Your task to perform on an android device: change the clock style Image 0: 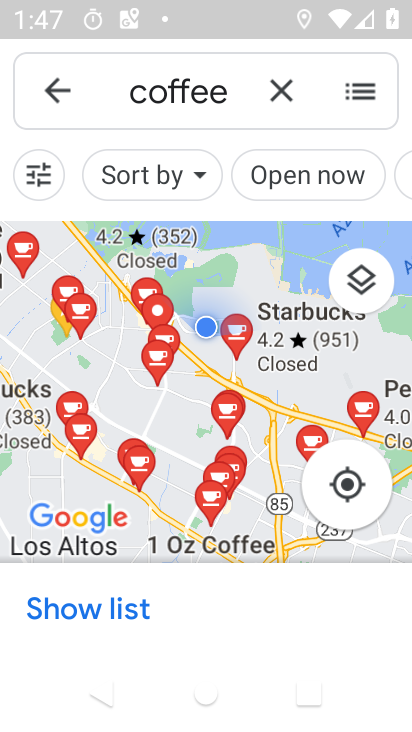
Step 0: press home button
Your task to perform on an android device: change the clock style Image 1: 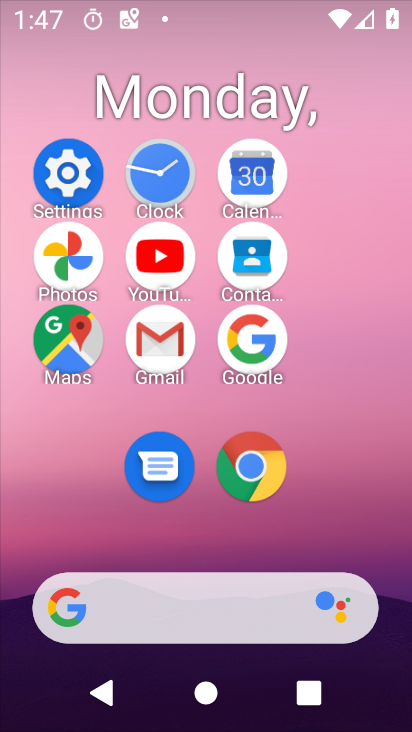
Step 1: click (176, 174)
Your task to perform on an android device: change the clock style Image 2: 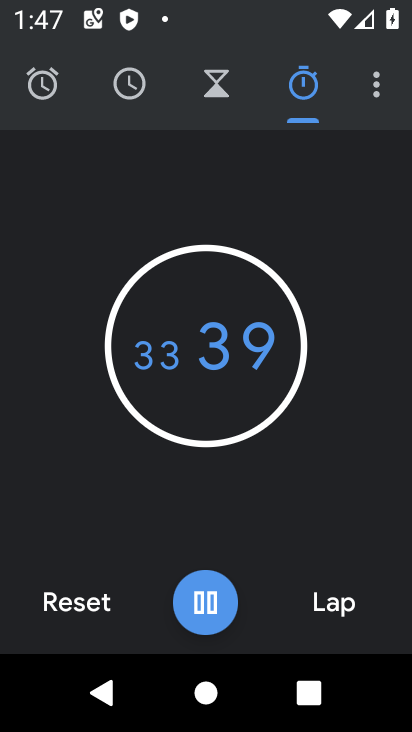
Step 2: click (355, 93)
Your task to perform on an android device: change the clock style Image 3: 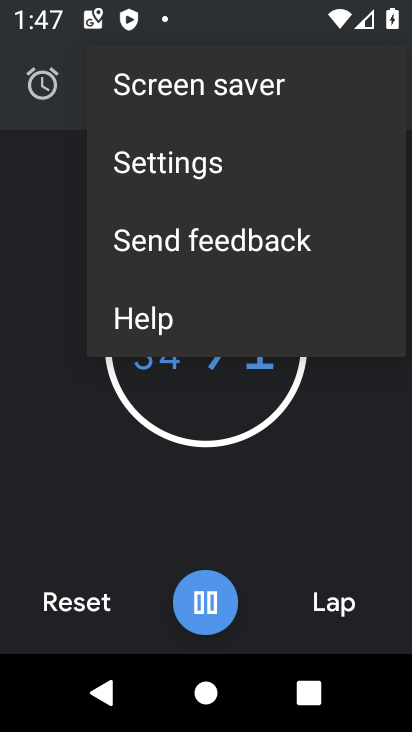
Step 3: click (279, 184)
Your task to perform on an android device: change the clock style Image 4: 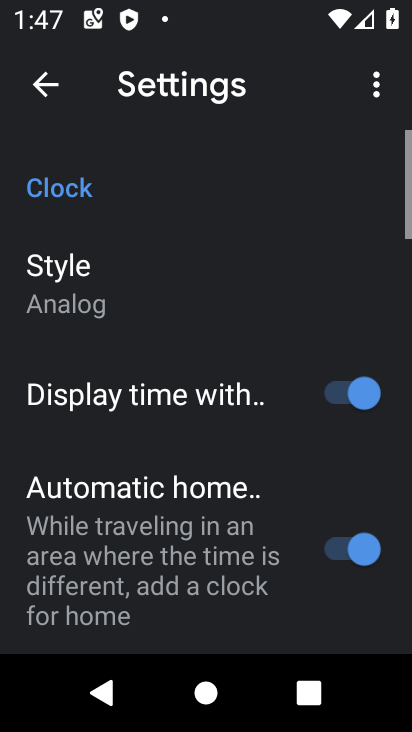
Step 4: click (76, 279)
Your task to perform on an android device: change the clock style Image 5: 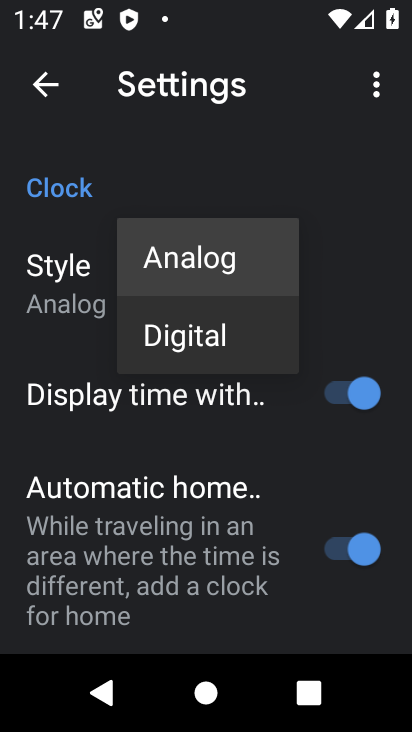
Step 5: click (186, 332)
Your task to perform on an android device: change the clock style Image 6: 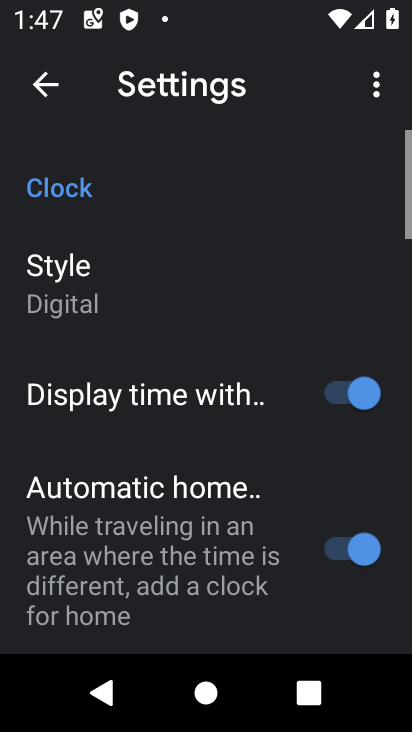
Step 6: task complete